Your task to perform on an android device: Open Google Maps Image 0: 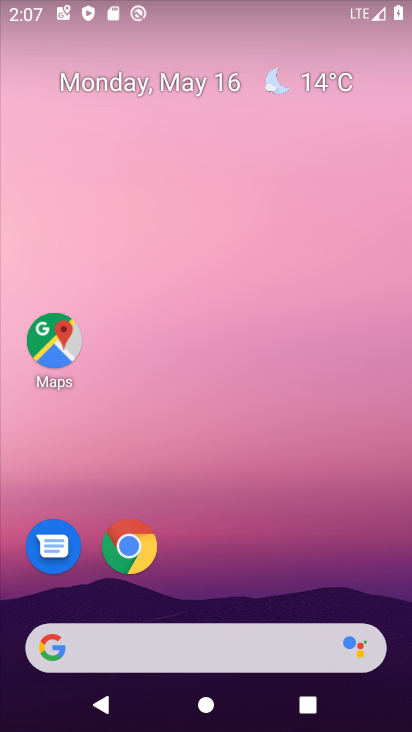
Step 0: drag from (240, 675) to (364, 190)
Your task to perform on an android device: Open Google Maps Image 1: 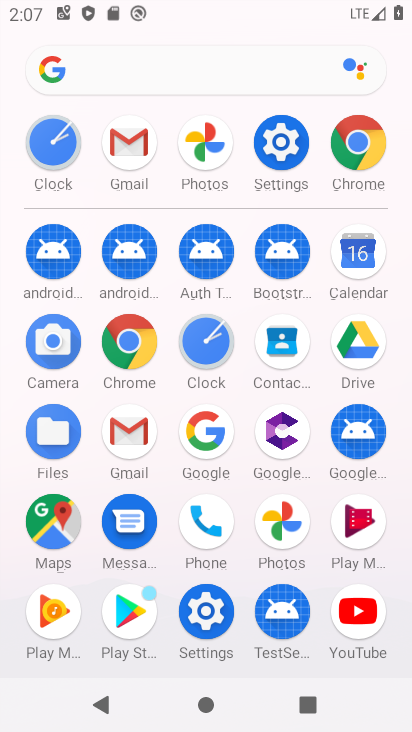
Step 1: click (65, 508)
Your task to perform on an android device: Open Google Maps Image 2: 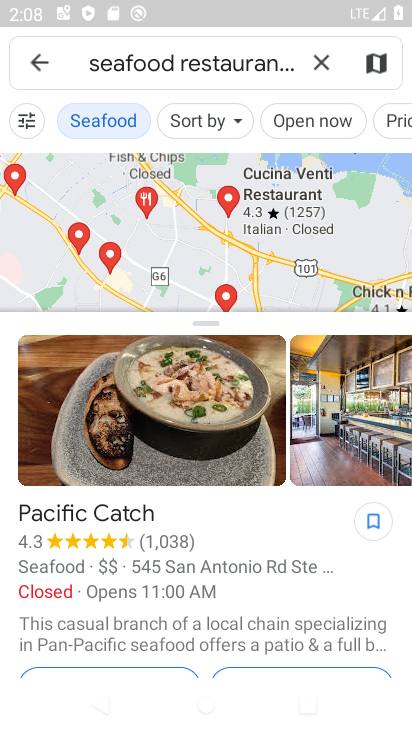
Step 2: click (31, 59)
Your task to perform on an android device: Open Google Maps Image 3: 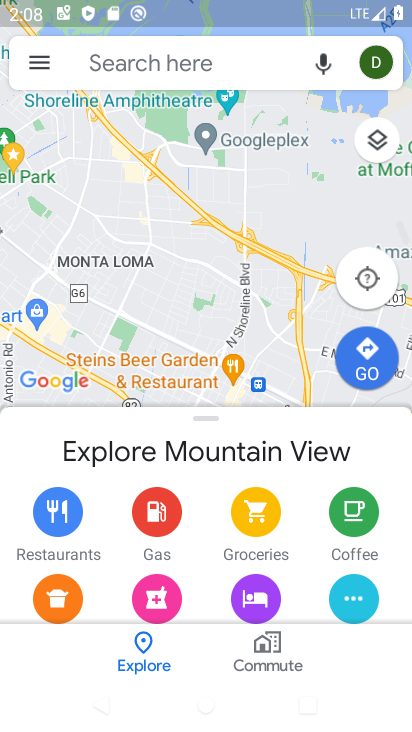
Step 3: click (359, 284)
Your task to perform on an android device: Open Google Maps Image 4: 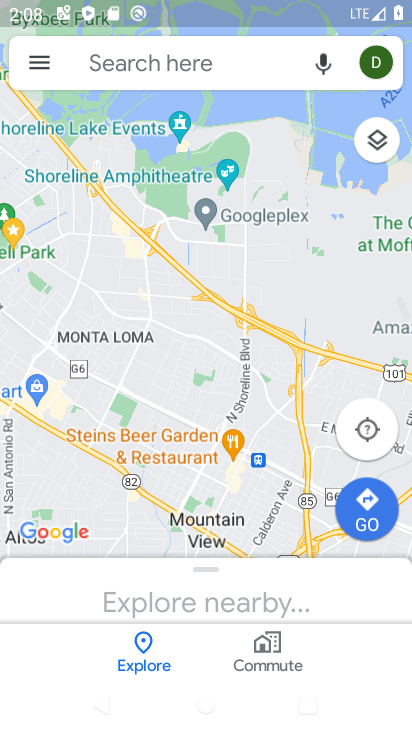
Step 4: task complete